Your task to perform on an android device: Add "usb-b" to the cart on newegg.com, then select checkout. Image 0: 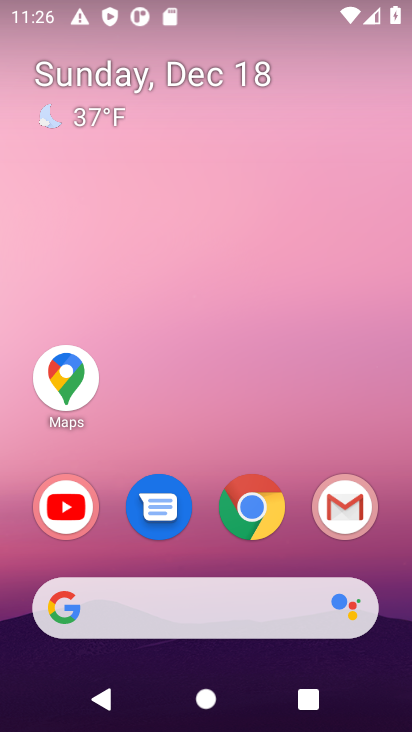
Step 0: click (254, 521)
Your task to perform on an android device: Add "usb-b" to the cart on newegg.com, then select checkout. Image 1: 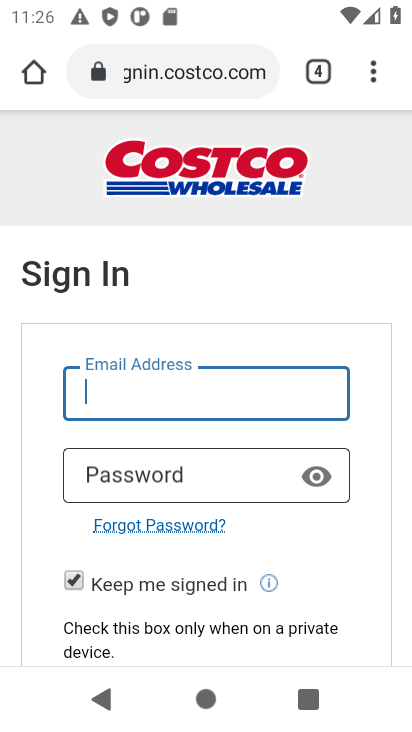
Step 1: click (172, 75)
Your task to perform on an android device: Add "usb-b" to the cart on newegg.com, then select checkout. Image 2: 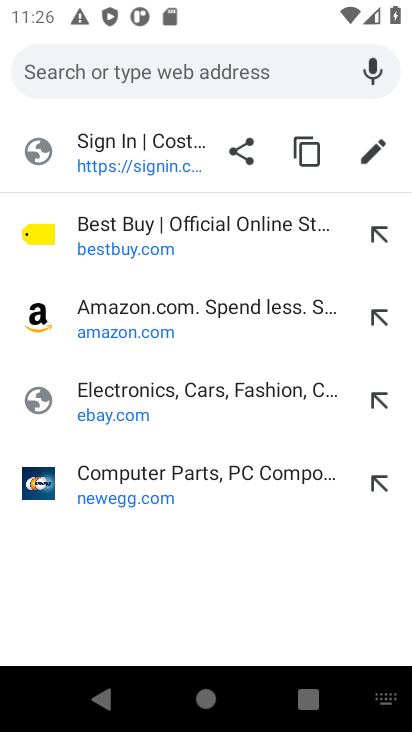
Step 2: click (103, 476)
Your task to perform on an android device: Add "usb-b" to the cart on newegg.com, then select checkout. Image 3: 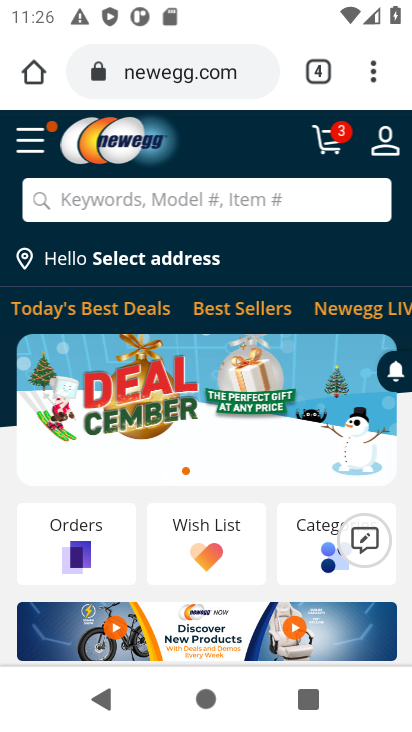
Step 3: click (87, 207)
Your task to perform on an android device: Add "usb-b" to the cart on newegg.com, then select checkout. Image 4: 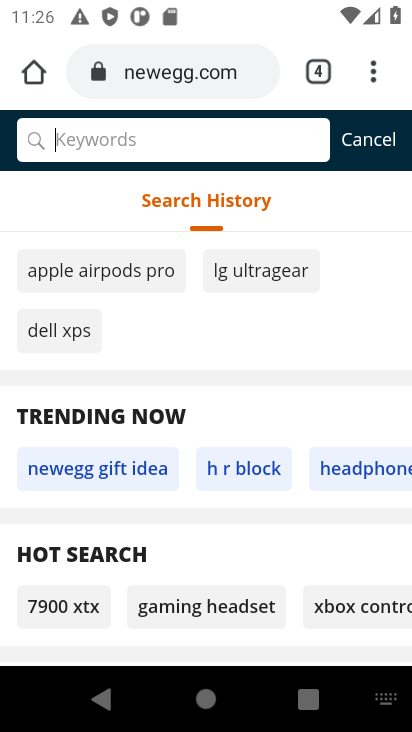
Step 4: type "usb-b"
Your task to perform on an android device: Add "usb-b" to the cart on newegg.com, then select checkout. Image 5: 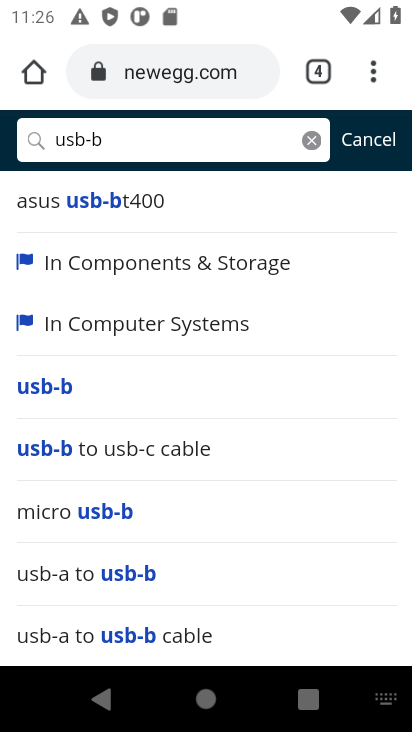
Step 5: click (50, 387)
Your task to perform on an android device: Add "usb-b" to the cart on newegg.com, then select checkout. Image 6: 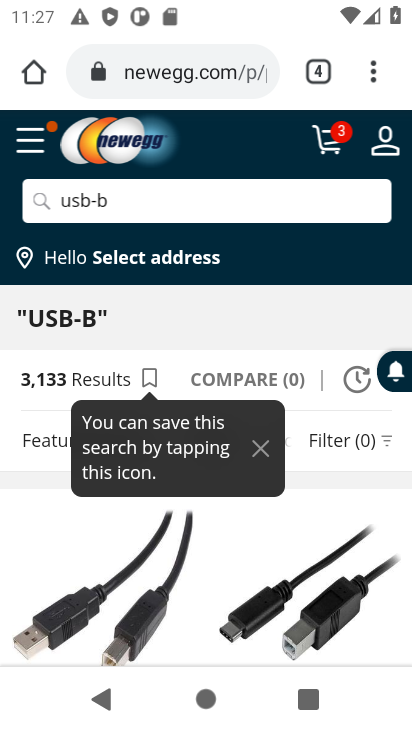
Step 6: drag from (161, 547) to (140, 235)
Your task to perform on an android device: Add "usb-b" to the cart on newegg.com, then select checkout. Image 7: 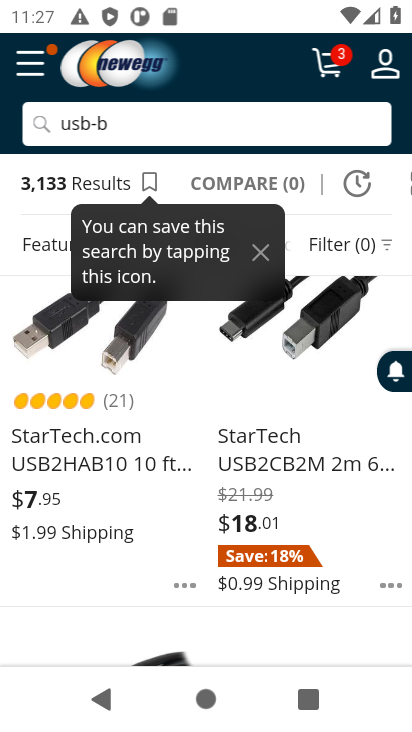
Step 7: drag from (66, 499) to (77, 174)
Your task to perform on an android device: Add "usb-b" to the cart on newegg.com, then select checkout. Image 8: 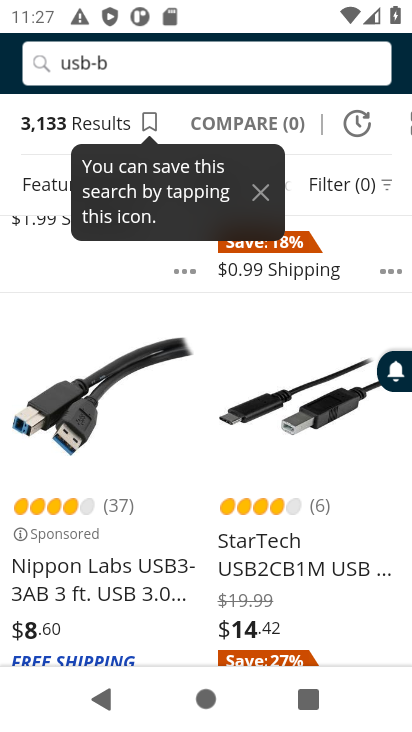
Step 8: drag from (85, 501) to (99, 253)
Your task to perform on an android device: Add "usb-b" to the cart on newegg.com, then select checkout. Image 9: 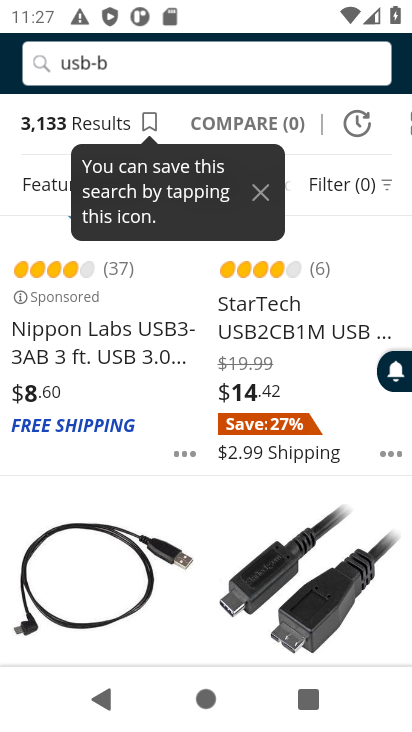
Step 9: drag from (146, 535) to (108, 260)
Your task to perform on an android device: Add "usb-b" to the cart on newegg.com, then select checkout. Image 10: 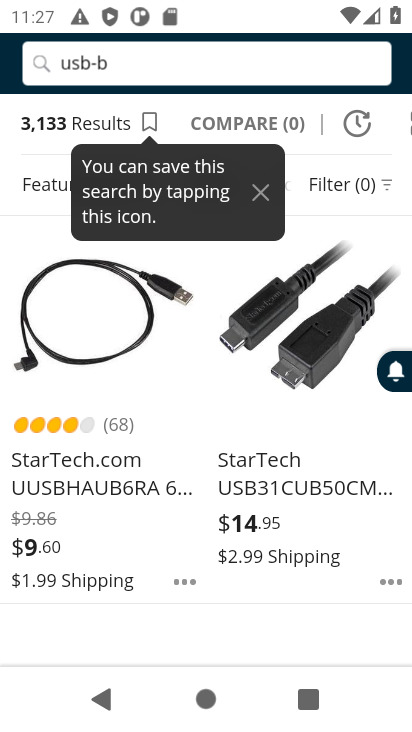
Step 10: drag from (107, 535) to (98, 256)
Your task to perform on an android device: Add "usb-b" to the cart on newegg.com, then select checkout. Image 11: 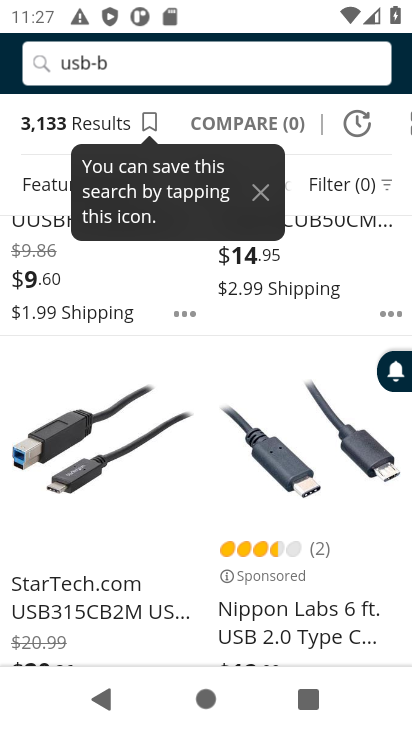
Step 11: drag from (84, 548) to (72, 329)
Your task to perform on an android device: Add "usb-b" to the cart on newegg.com, then select checkout. Image 12: 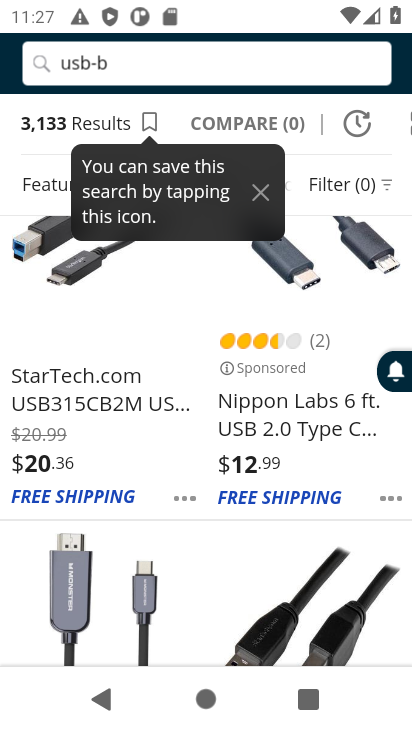
Step 12: drag from (99, 532) to (108, 212)
Your task to perform on an android device: Add "usb-b" to the cart on newegg.com, then select checkout. Image 13: 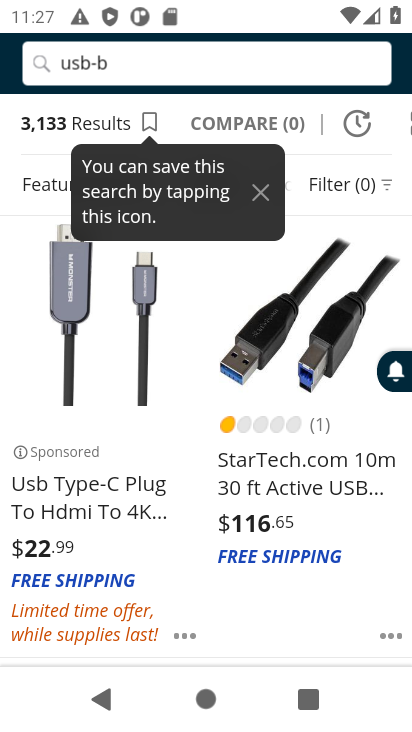
Step 13: drag from (105, 506) to (93, 281)
Your task to perform on an android device: Add "usb-b" to the cart on newegg.com, then select checkout. Image 14: 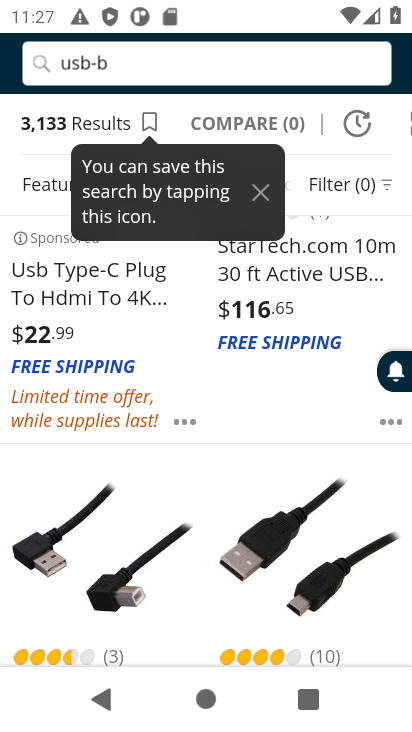
Step 14: drag from (59, 529) to (58, 279)
Your task to perform on an android device: Add "usb-b" to the cart on newegg.com, then select checkout. Image 15: 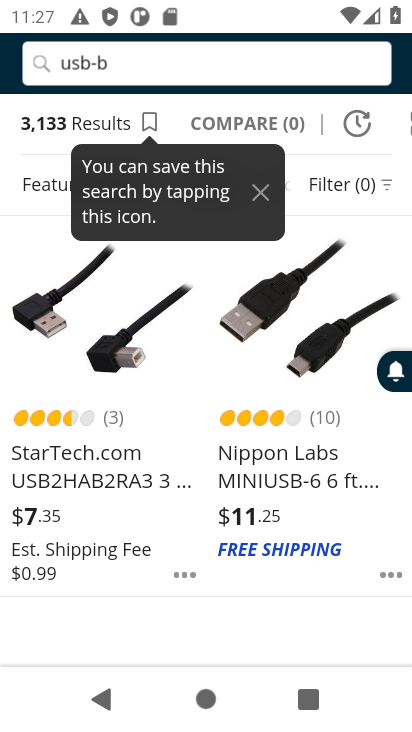
Step 15: drag from (105, 559) to (108, 396)
Your task to perform on an android device: Add "usb-b" to the cart on newegg.com, then select checkout. Image 16: 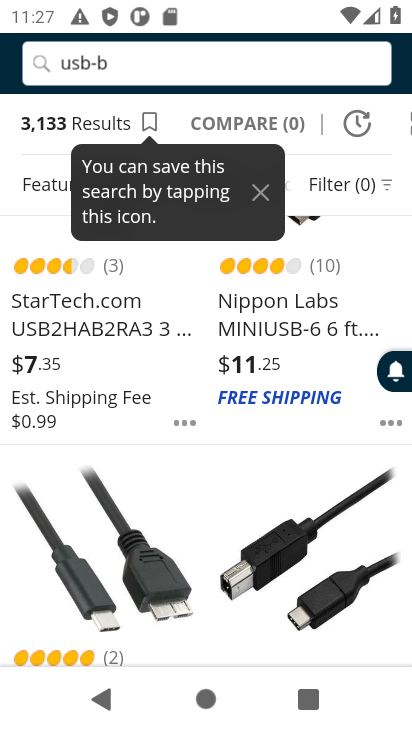
Step 16: drag from (125, 540) to (95, 187)
Your task to perform on an android device: Add "usb-b" to the cart on newegg.com, then select checkout. Image 17: 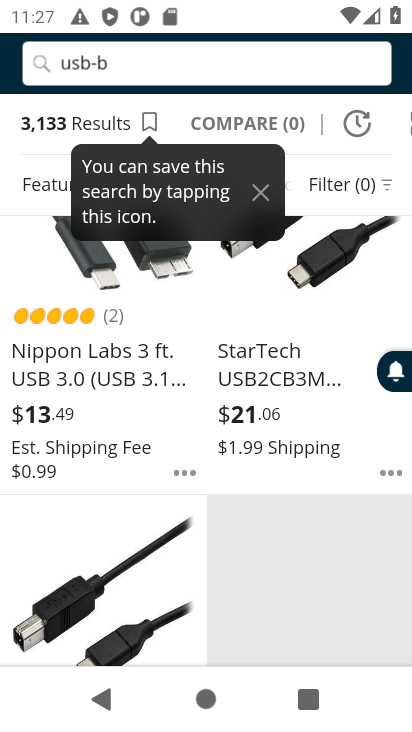
Step 17: drag from (121, 526) to (136, 201)
Your task to perform on an android device: Add "usb-b" to the cart on newegg.com, then select checkout. Image 18: 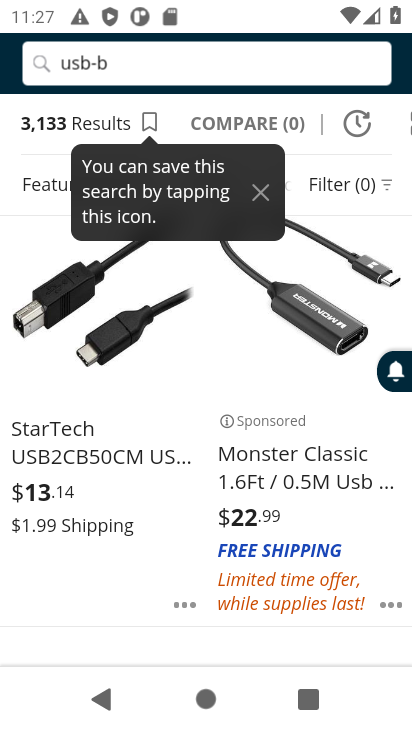
Step 18: drag from (125, 490) to (113, 213)
Your task to perform on an android device: Add "usb-b" to the cart on newegg.com, then select checkout. Image 19: 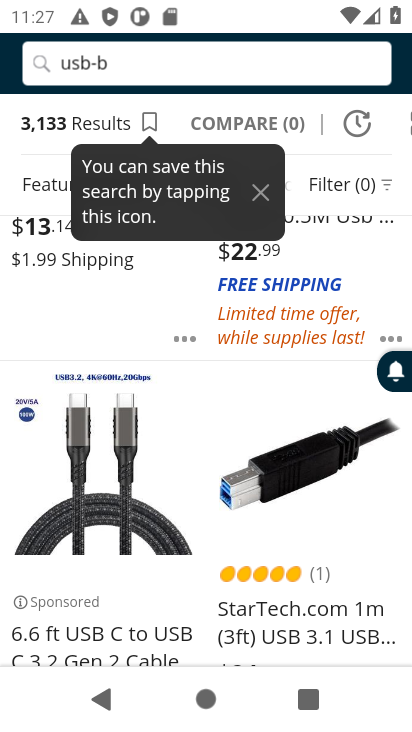
Step 19: drag from (94, 516) to (113, 266)
Your task to perform on an android device: Add "usb-b" to the cart on newegg.com, then select checkout. Image 20: 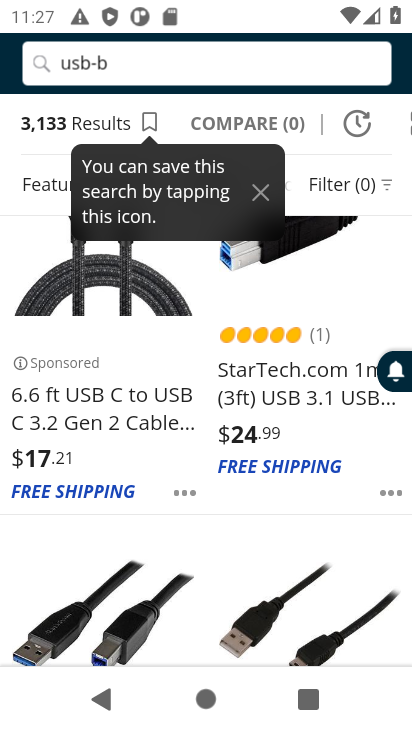
Step 20: drag from (69, 513) to (75, 332)
Your task to perform on an android device: Add "usb-b" to the cart on newegg.com, then select checkout. Image 21: 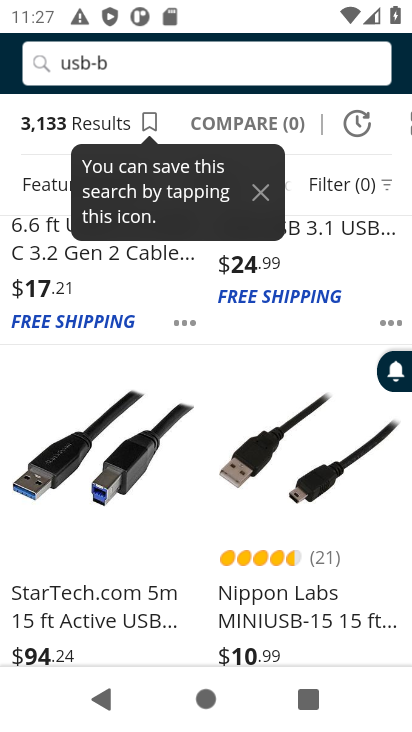
Step 21: drag from (82, 559) to (74, 184)
Your task to perform on an android device: Add "usb-b" to the cart on newegg.com, then select checkout. Image 22: 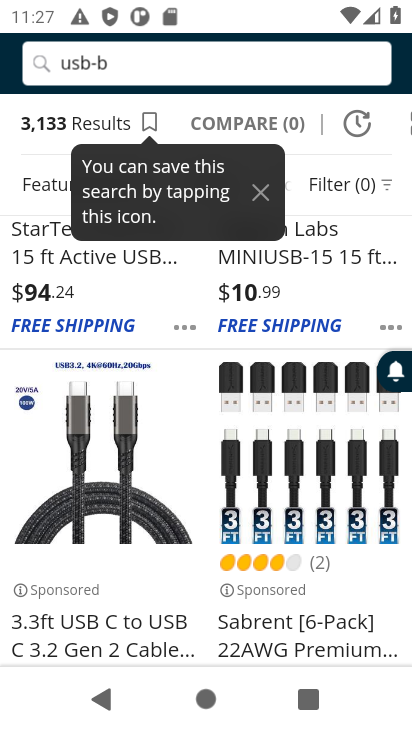
Step 22: drag from (92, 496) to (89, 282)
Your task to perform on an android device: Add "usb-b" to the cart on newegg.com, then select checkout. Image 23: 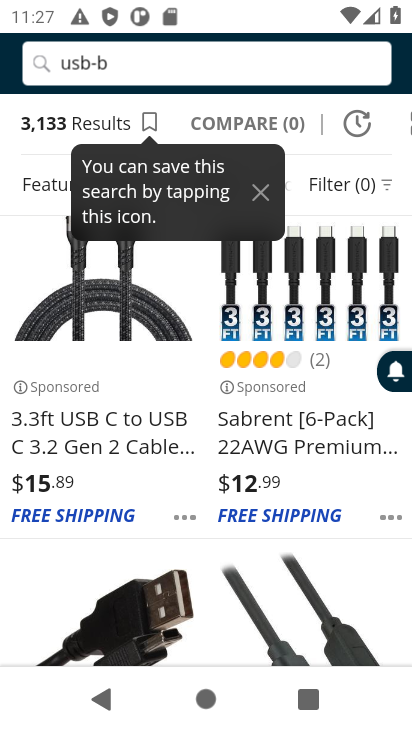
Step 23: drag from (107, 527) to (97, 262)
Your task to perform on an android device: Add "usb-b" to the cart on newegg.com, then select checkout. Image 24: 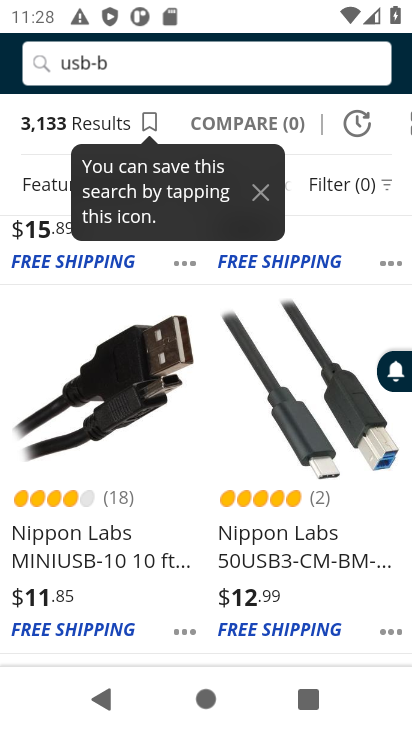
Step 24: drag from (107, 507) to (94, 254)
Your task to perform on an android device: Add "usb-b" to the cart on newegg.com, then select checkout. Image 25: 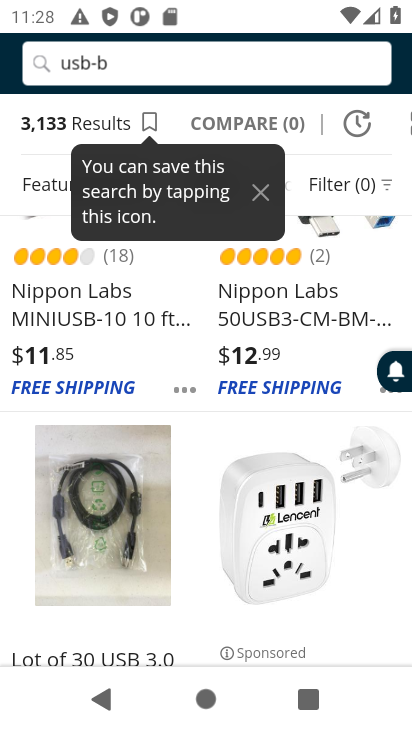
Step 25: drag from (113, 487) to (111, 230)
Your task to perform on an android device: Add "usb-b" to the cart on newegg.com, then select checkout. Image 26: 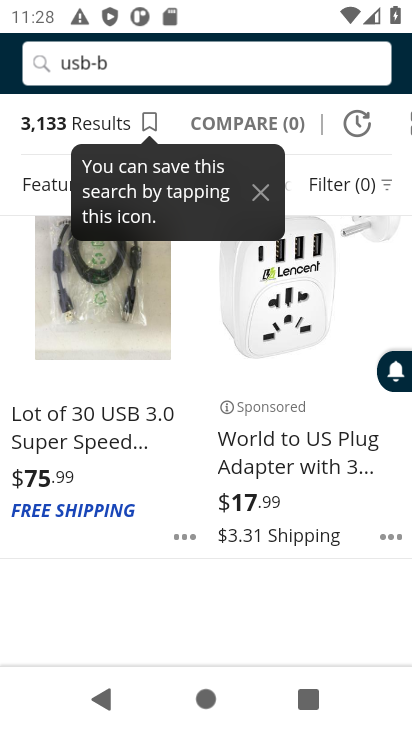
Step 26: drag from (98, 529) to (107, 277)
Your task to perform on an android device: Add "usb-b" to the cart on newegg.com, then select checkout. Image 27: 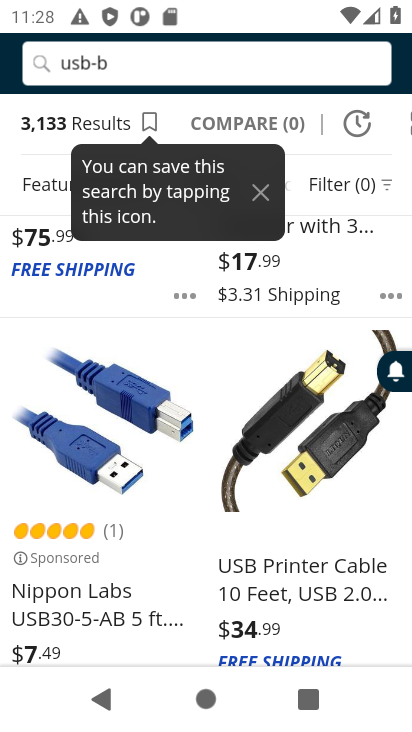
Step 27: drag from (85, 555) to (85, 308)
Your task to perform on an android device: Add "usb-b" to the cart on newegg.com, then select checkout. Image 28: 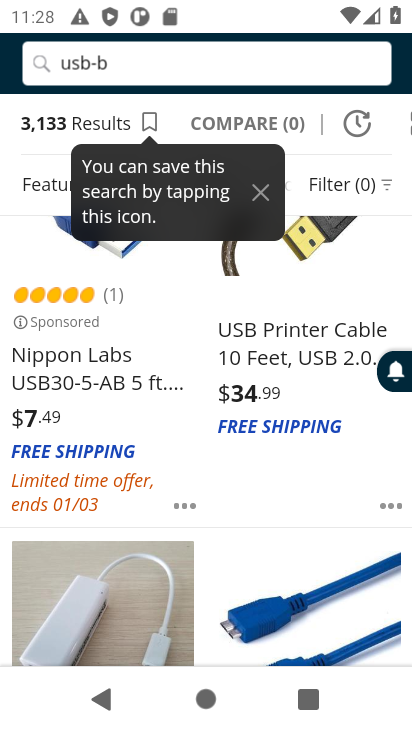
Step 28: drag from (90, 525) to (103, 265)
Your task to perform on an android device: Add "usb-b" to the cart on newegg.com, then select checkout. Image 29: 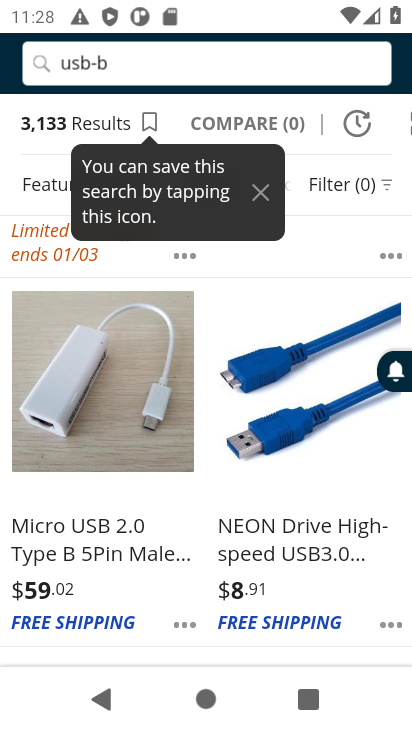
Step 29: drag from (103, 528) to (113, 287)
Your task to perform on an android device: Add "usb-b" to the cart on newegg.com, then select checkout. Image 30: 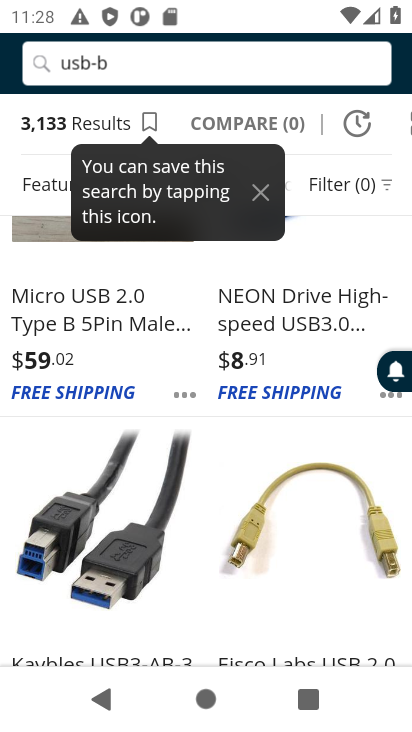
Step 30: click (77, 310)
Your task to perform on an android device: Add "usb-b" to the cart on newegg.com, then select checkout. Image 31: 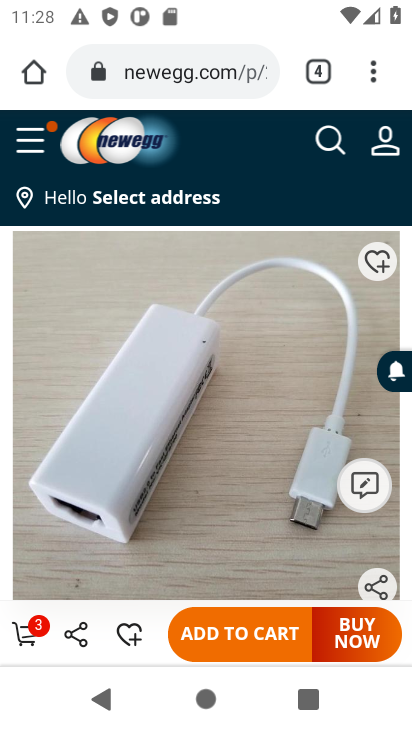
Step 31: click (218, 633)
Your task to perform on an android device: Add "usb-b" to the cart on newegg.com, then select checkout. Image 32: 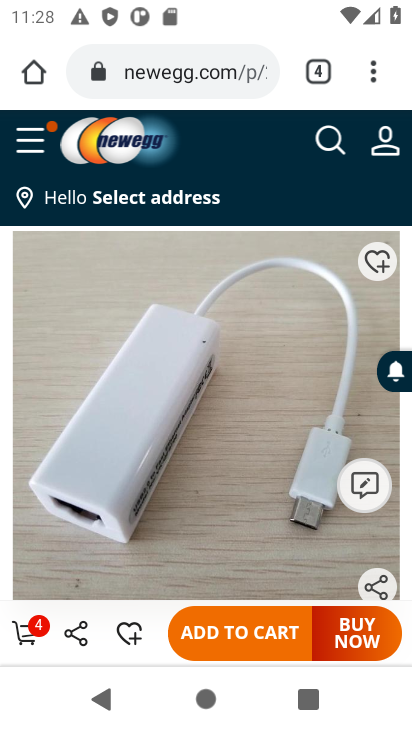
Step 32: click (218, 632)
Your task to perform on an android device: Add "usb-b" to the cart on newegg.com, then select checkout. Image 33: 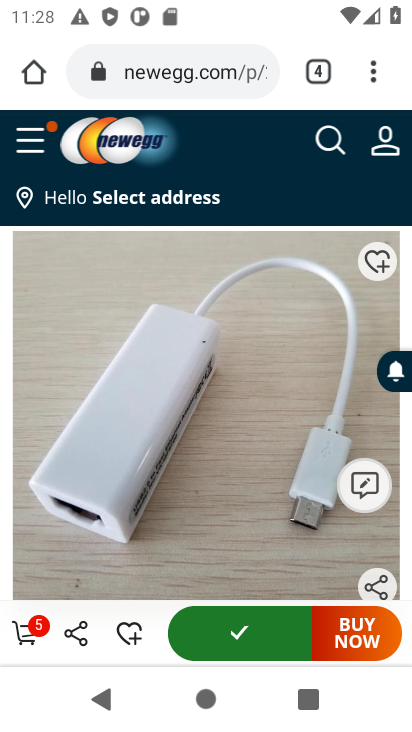
Step 33: click (16, 630)
Your task to perform on an android device: Add "usb-b" to the cart on newegg.com, then select checkout. Image 34: 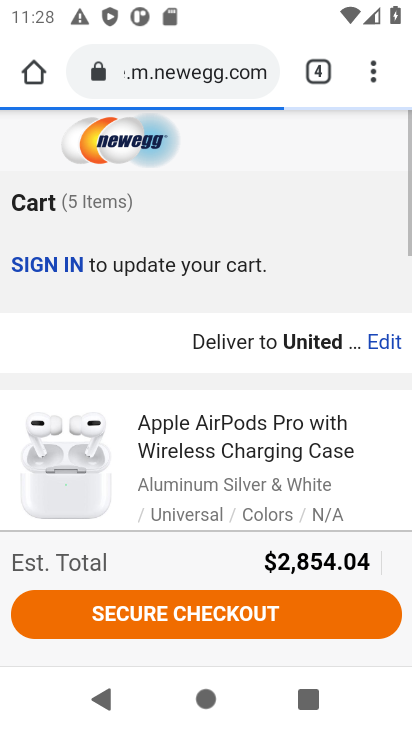
Step 34: click (148, 607)
Your task to perform on an android device: Add "usb-b" to the cart on newegg.com, then select checkout. Image 35: 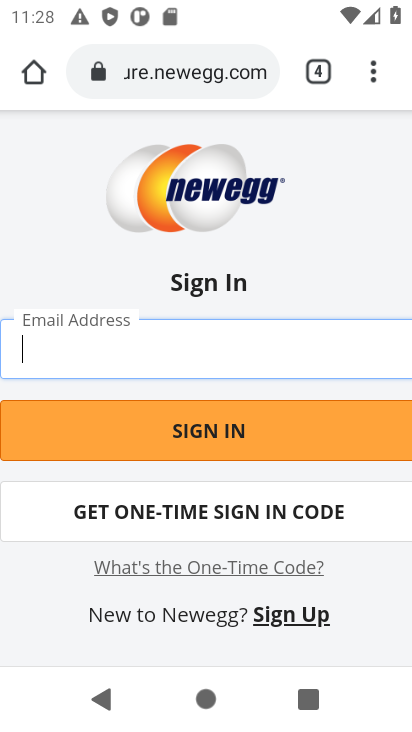
Step 35: task complete